Your task to perform on an android device: search for starred emails in the gmail app Image 0: 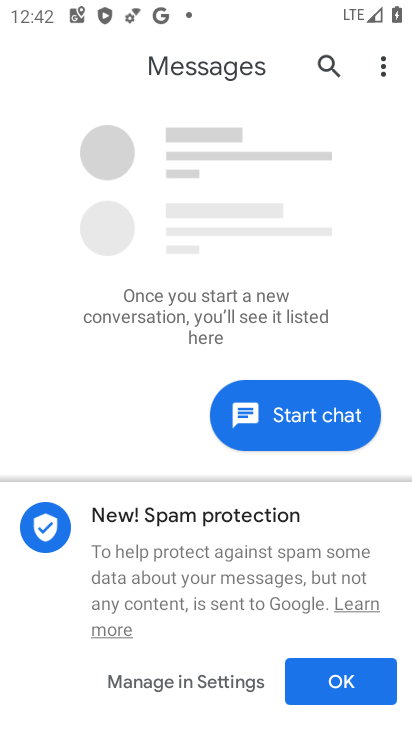
Step 0: press home button
Your task to perform on an android device: search for starred emails in the gmail app Image 1: 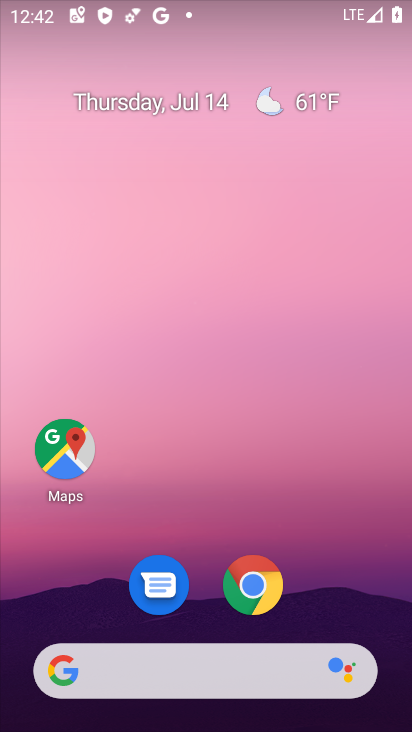
Step 1: drag from (324, 561) to (278, 38)
Your task to perform on an android device: search for starred emails in the gmail app Image 2: 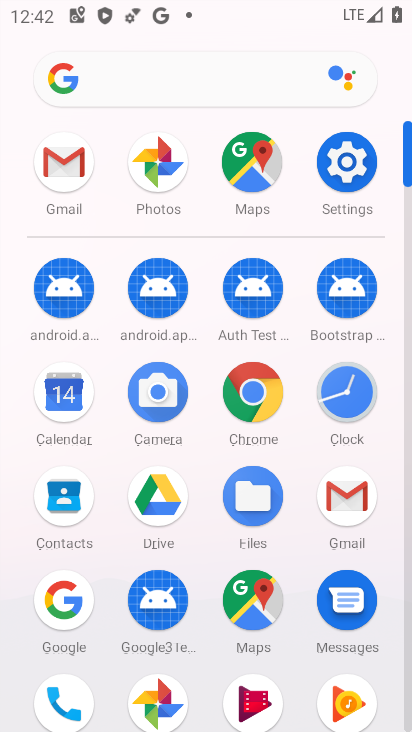
Step 2: click (73, 161)
Your task to perform on an android device: search for starred emails in the gmail app Image 3: 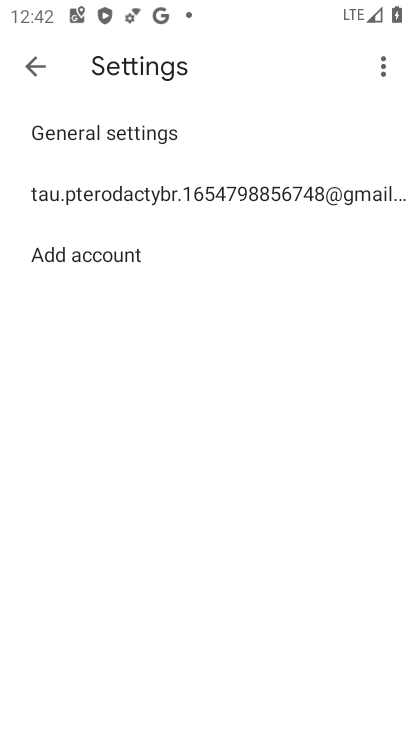
Step 3: click (37, 52)
Your task to perform on an android device: search for starred emails in the gmail app Image 4: 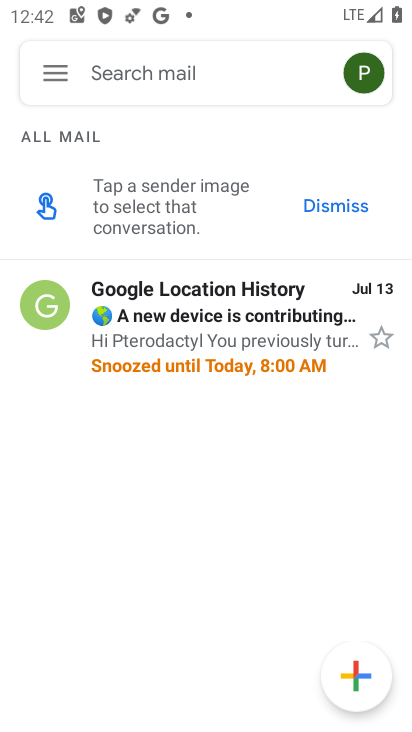
Step 4: click (57, 67)
Your task to perform on an android device: search for starred emails in the gmail app Image 5: 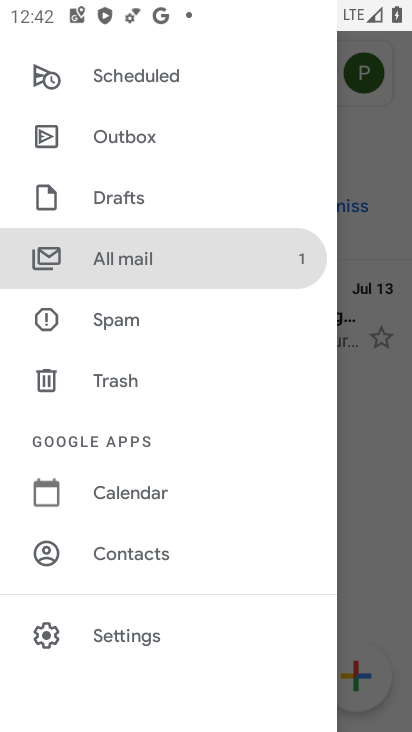
Step 5: drag from (157, 166) to (161, 636)
Your task to perform on an android device: search for starred emails in the gmail app Image 6: 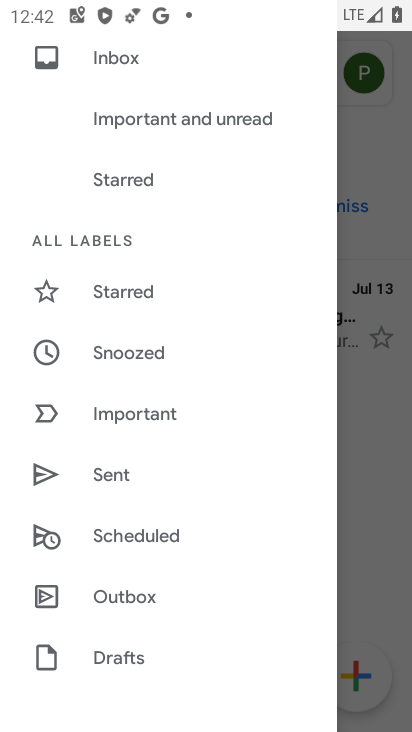
Step 6: click (136, 291)
Your task to perform on an android device: search for starred emails in the gmail app Image 7: 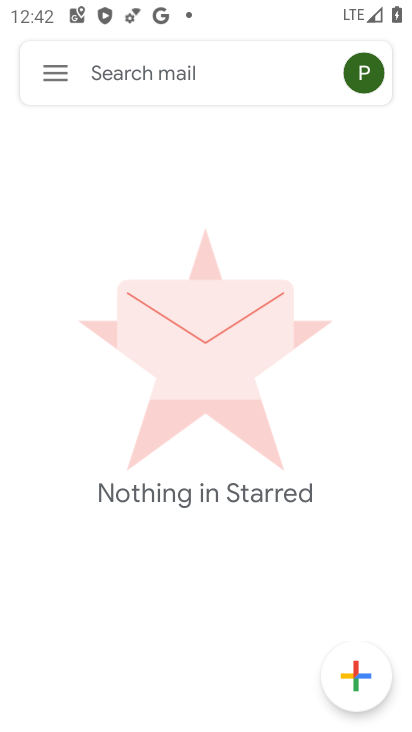
Step 7: task complete